Your task to perform on an android device: open a bookmark in the chrome app Image 0: 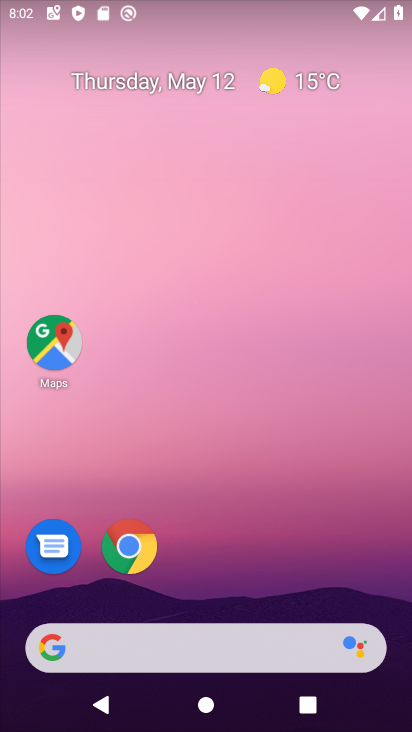
Step 0: click (135, 557)
Your task to perform on an android device: open a bookmark in the chrome app Image 1: 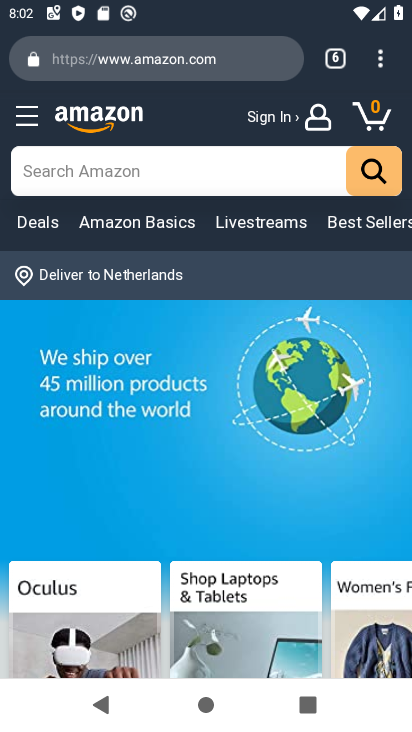
Step 1: task complete